Your task to perform on an android device: find photos in the google photos app Image 0: 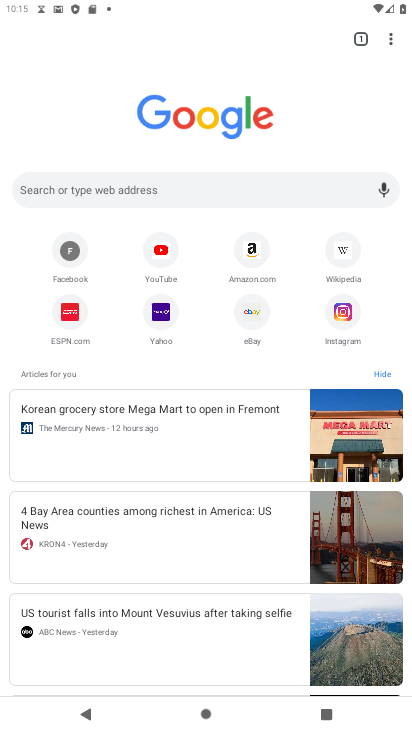
Step 0: press home button
Your task to perform on an android device: find photos in the google photos app Image 1: 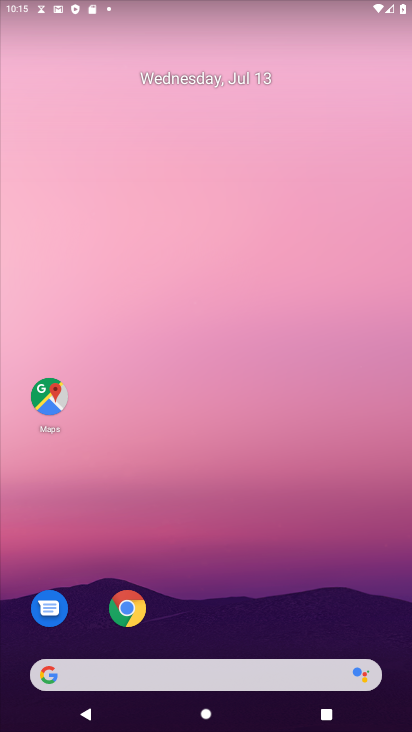
Step 1: drag from (251, 641) to (275, 64)
Your task to perform on an android device: find photos in the google photos app Image 2: 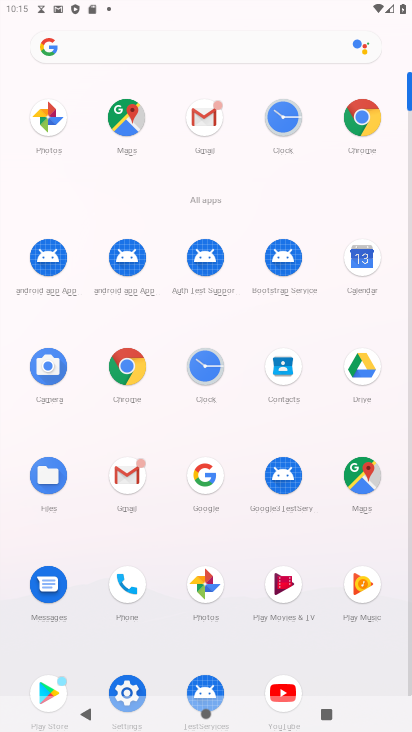
Step 2: click (205, 588)
Your task to perform on an android device: find photos in the google photos app Image 3: 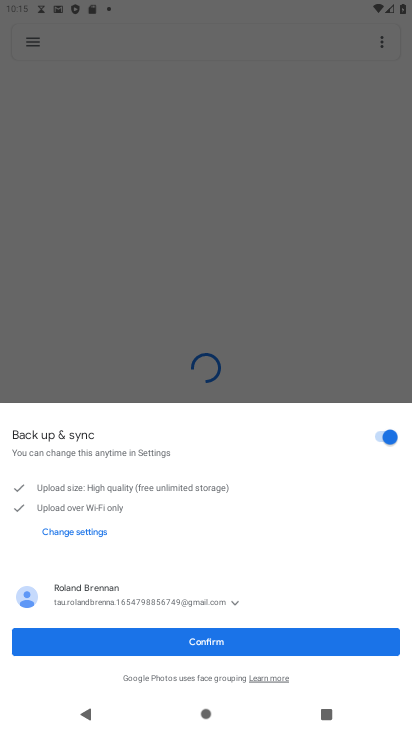
Step 3: click (244, 643)
Your task to perform on an android device: find photos in the google photos app Image 4: 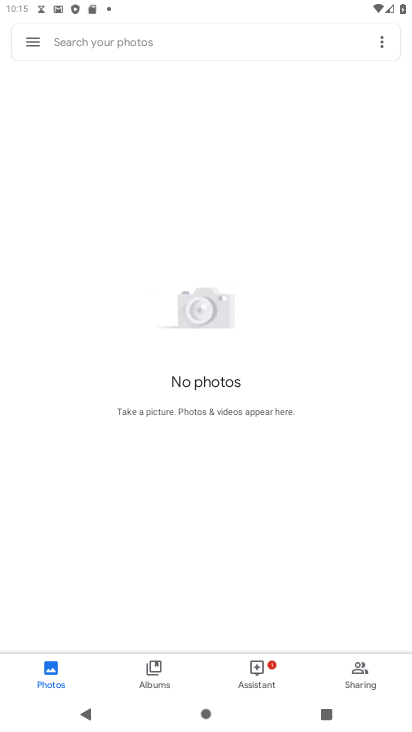
Step 4: task complete